Your task to perform on an android device: move an email to a new category in the gmail app Image 0: 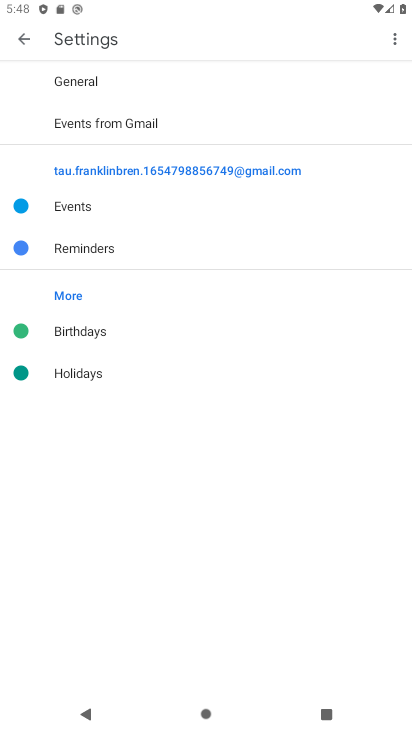
Step 0: press home button
Your task to perform on an android device: move an email to a new category in the gmail app Image 1: 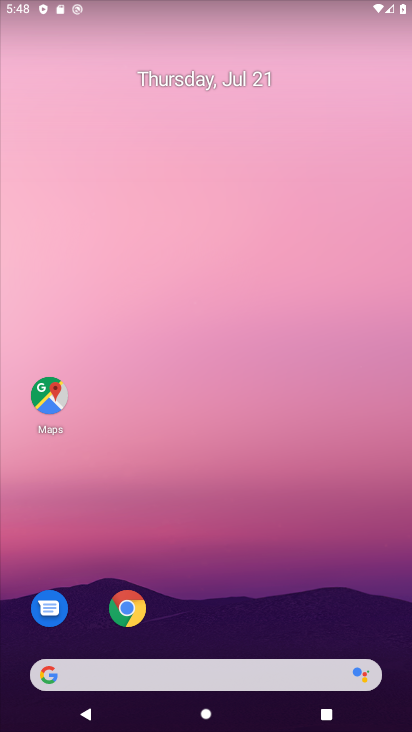
Step 1: drag from (184, 672) to (272, 282)
Your task to perform on an android device: move an email to a new category in the gmail app Image 2: 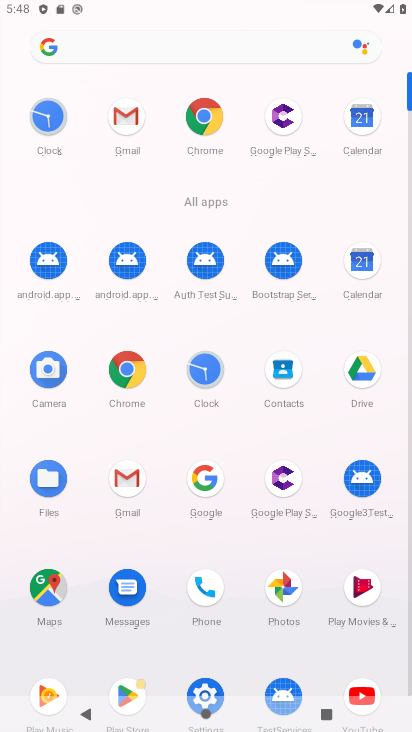
Step 2: click (123, 119)
Your task to perform on an android device: move an email to a new category in the gmail app Image 3: 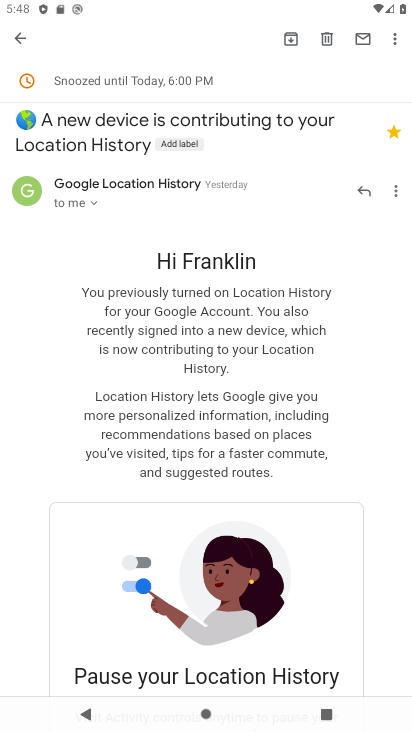
Step 3: click (392, 38)
Your task to perform on an android device: move an email to a new category in the gmail app Image 4: 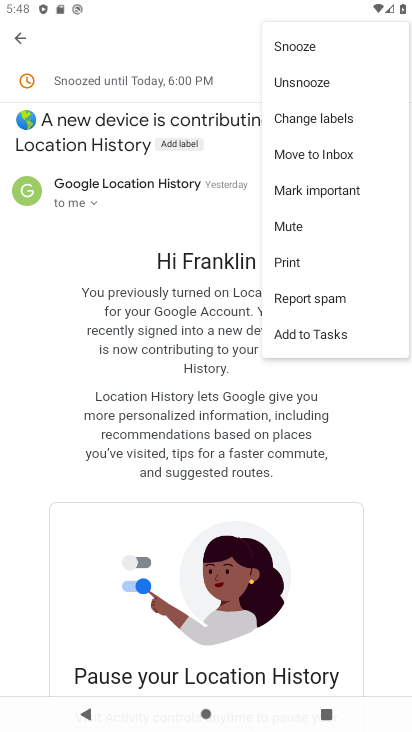
Step 4: click (347, 146)
Your task to perform on an android device: move an email to a new category in the gmail app Image 5: 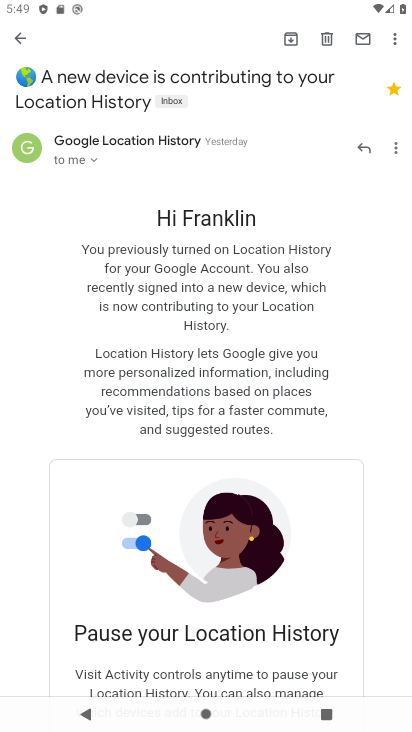
Step 5: task complete